Your task to perform on an android device: Find coffee shops on Maps Image 0: 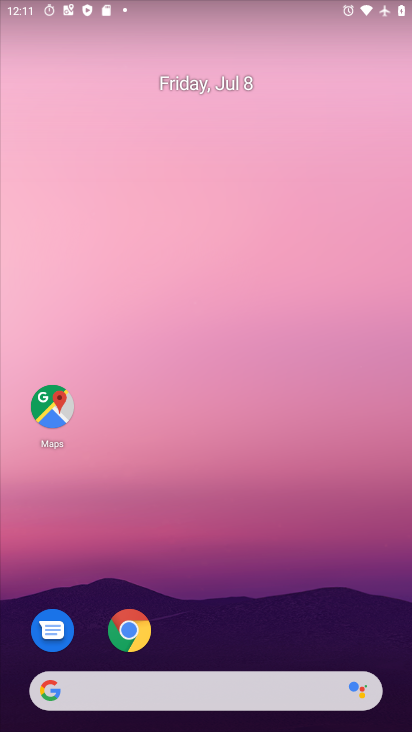
Step 0: click (39, 390)
Your task to perform on an android device: Find coffee shops on Maps Image 1: 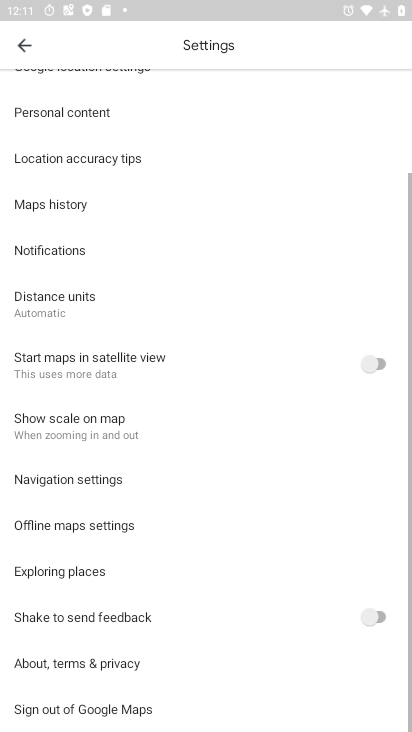
Step 1: click (28, 48)
Your task to perform on an android device: Find coffee shops on Maps Image 2: 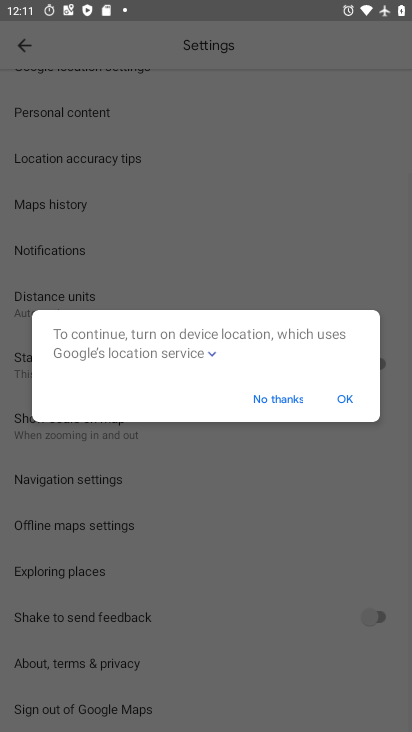
Step 2: click (345, 396)
Your task to perform on an android device: Find coffee shops on Maps Image 3: 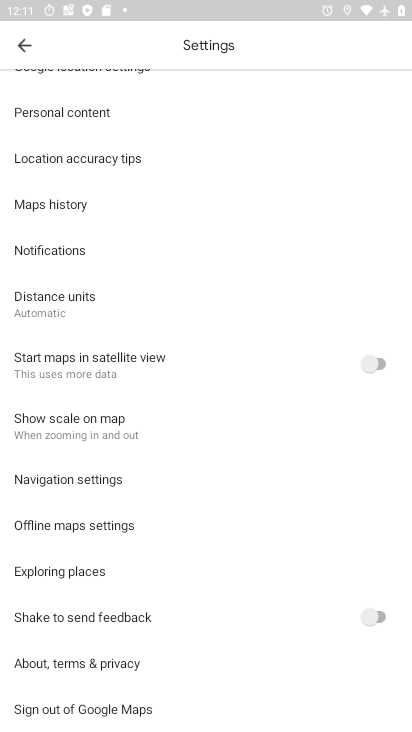
Step 3: click (21, 46)
Your task to perform on an android device: Find coffee shops on Maps Image 4: 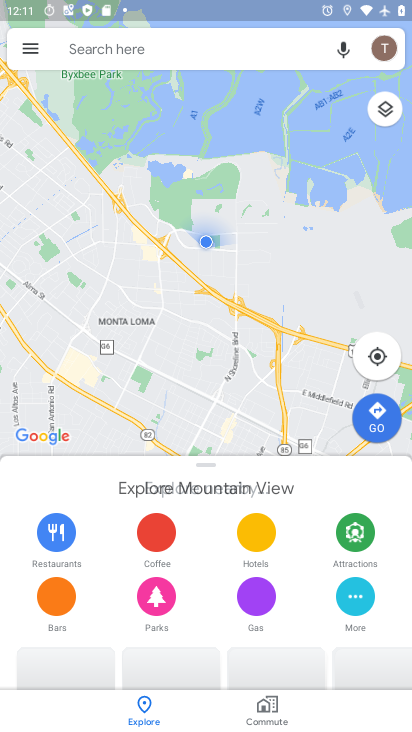
Step 4: click (218, 55)
Your task to perform on an android device: Find coffee shops on Maps Image 5: 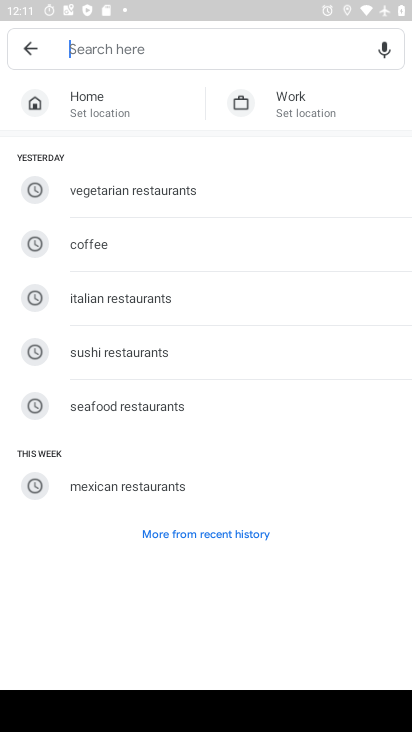
Step 5: type "coffee shops"
Your task to perform on an android device: Find coffee shops on Maps Image 6: 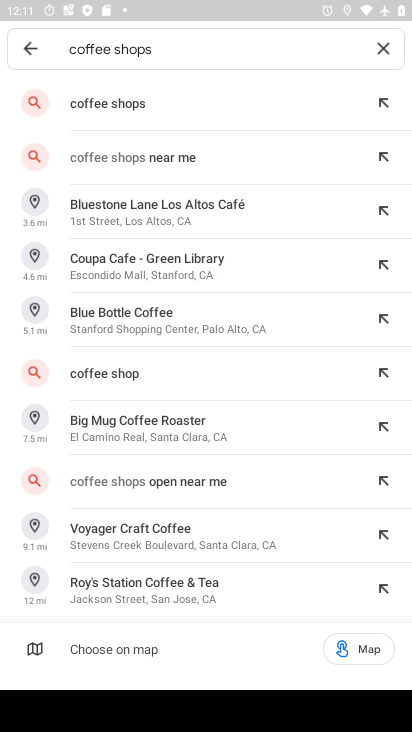
Step 6: click (99, 101)
Your task to perform on an android device: Find coffee shops on Maps Image 7: 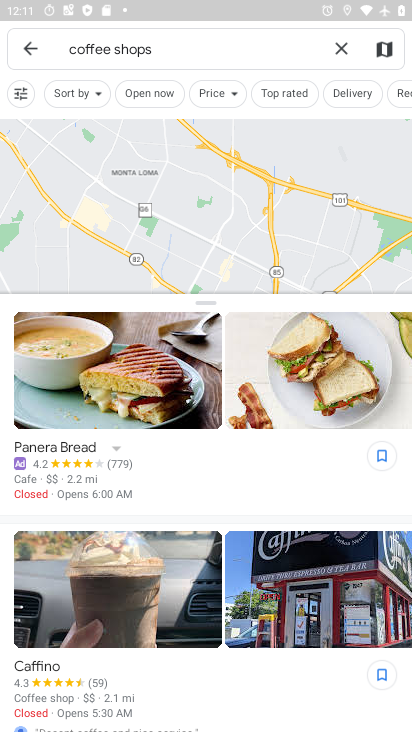
Step 7: task complete